Your task to perform on an android device: turn on javascript in the chrome app Image 0: 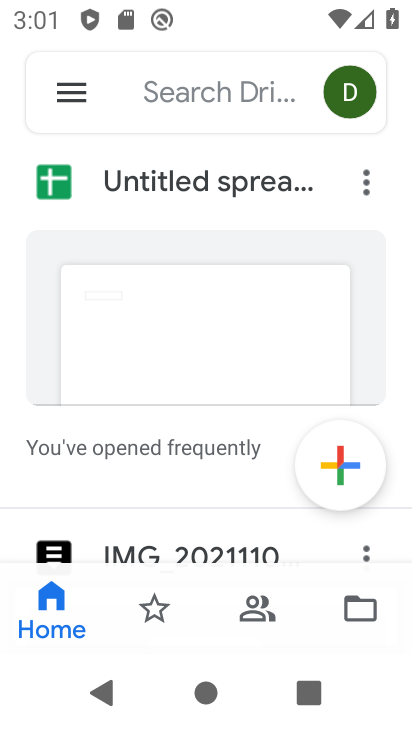
Step 0: press home button
Your task to perform on an android device: turn on javascript in the chrome app Image 1: 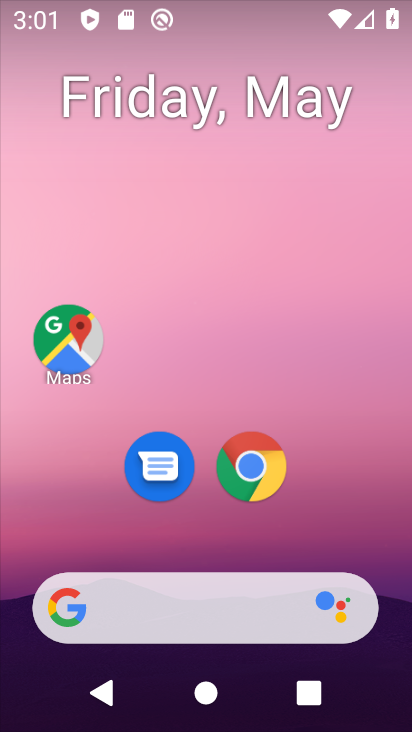
Step 1: click (252, 456)
Your task to perform on an android device: turn on javascript in the chrome app Image 2: 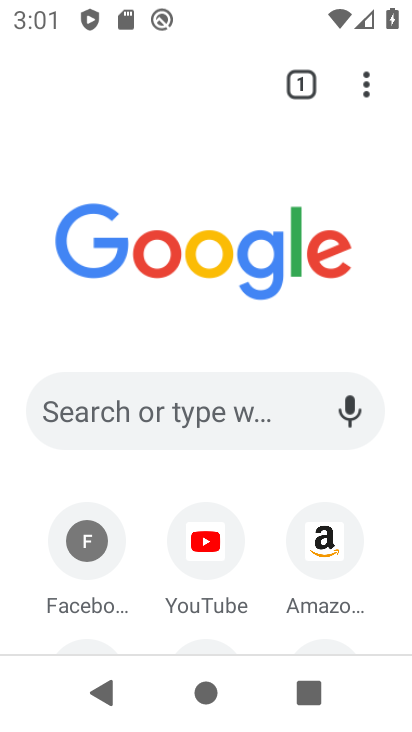
Step 2: click (366, 83)
Your task to perform on an android device: turn on javascript in the chrome app Image 3: 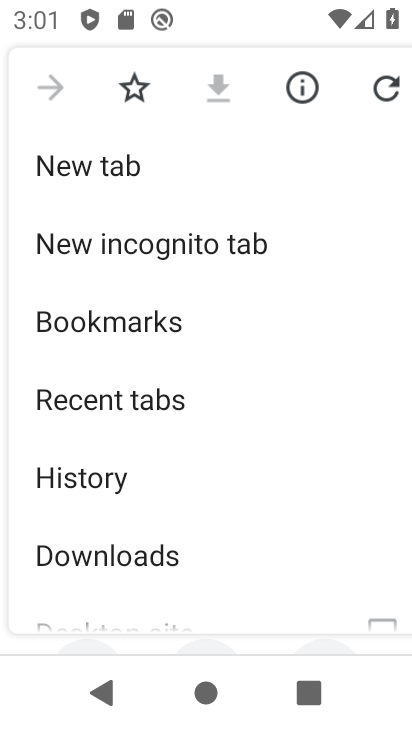
Step 3: drag from (193, 552) to (260, 169)
Your task to perform on an android device: turn on javascript in the chrome app Image 4: 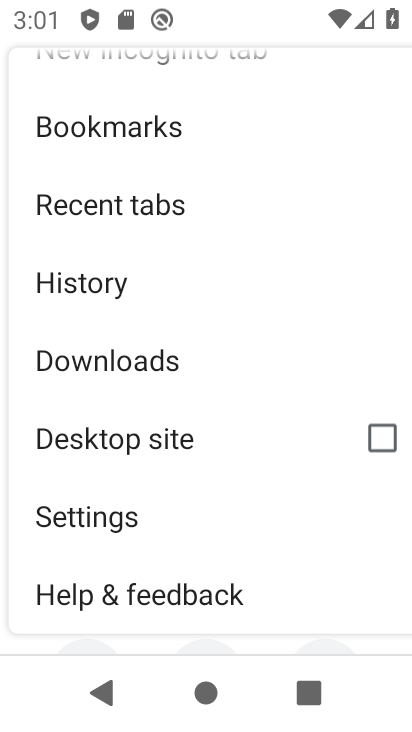
Step 4: click (151, 516)
Your task to perform on an android device: turn on javascript in the chrome app Image 5: 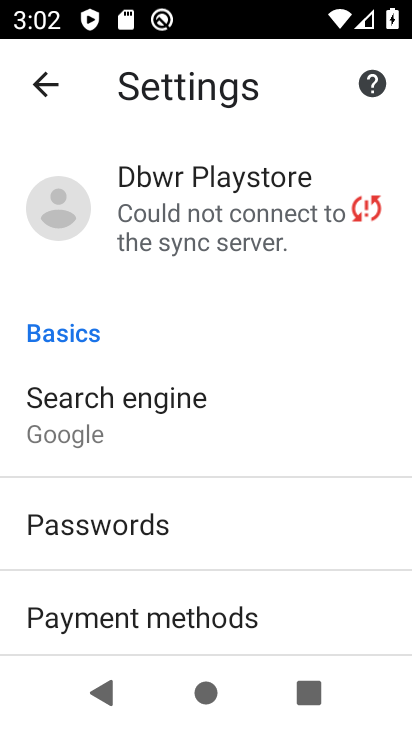
Step 5: drag from (241, 612) to (321, 146)
Your task to perform on an android device: turn on javascript in the chrome app Image 6: 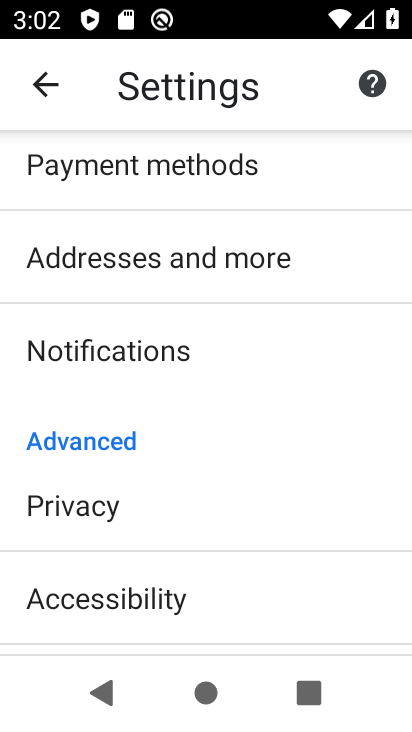
Step 6: drag from (186, 603) to (237, 185)
Your task to perform on an android device: turn on javascript in the chrome app Image 7: 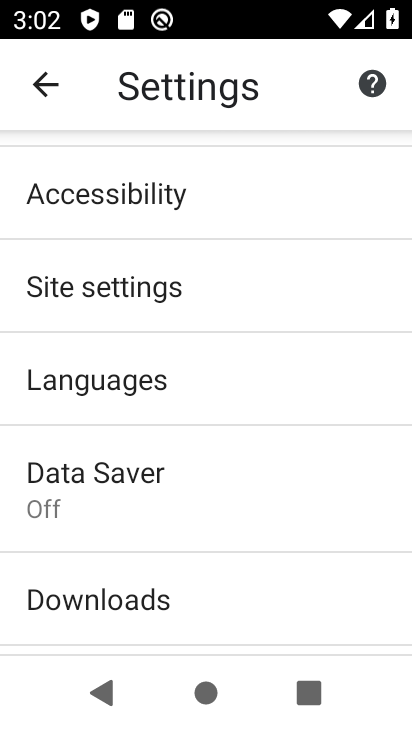
Step 7: click (188, 294)
Your task to perform on an android device: turn on javascript in the chrome app Image 8: 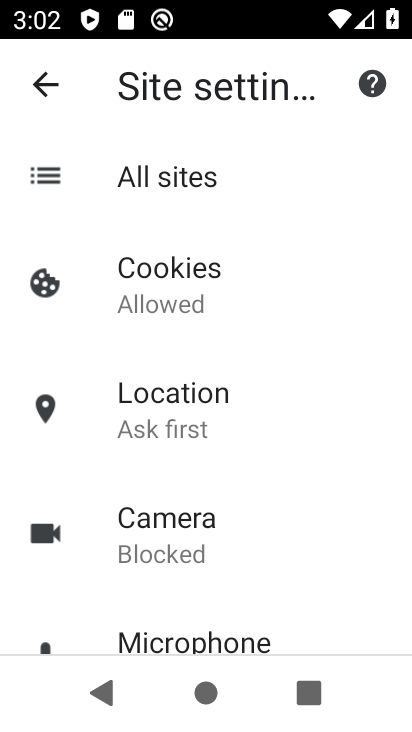
Step 8: drag from (168, 586) to (224, 177)
Your task to perform on an android device: turn on javascript in the chrome app Image 9: 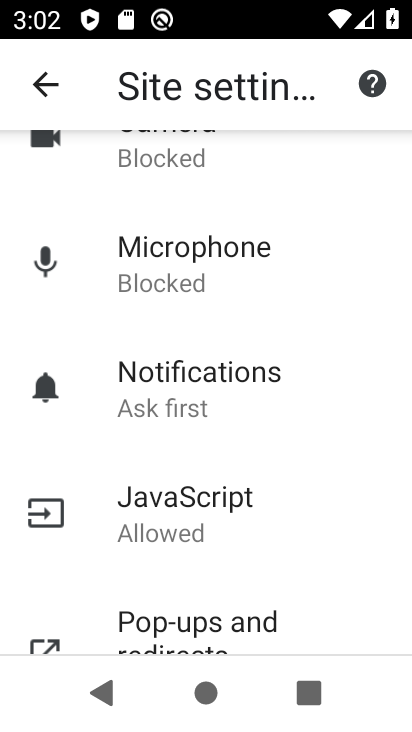
Step 9: click (216, 522)
Your task to perform on an android device: turn on javascript in the chrome app Image 10: 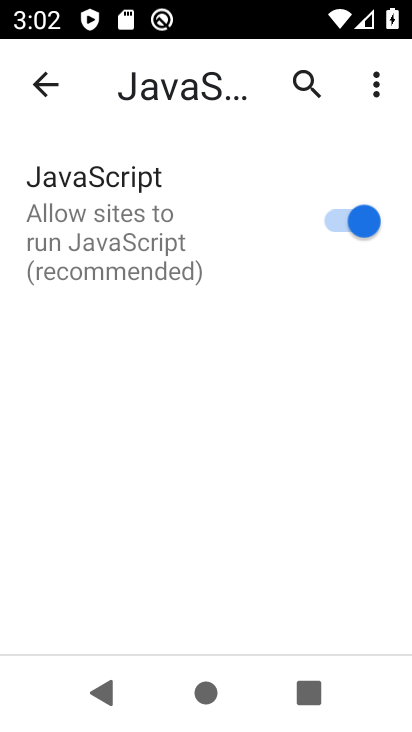
Step 10: task complete